Your task to perform on an android device: Search for razer nari on target.com, select the first entry, add it to the cart, then select checkout. Image 0: 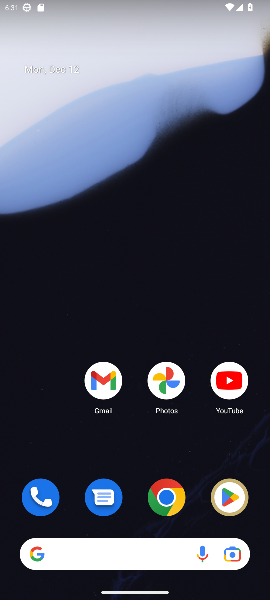
Step 0: click (60, 552)
Your task to perform on an android device: Search for razer nari on target.com, select the first entry, add it to the cart, then select checkout. Image 1: 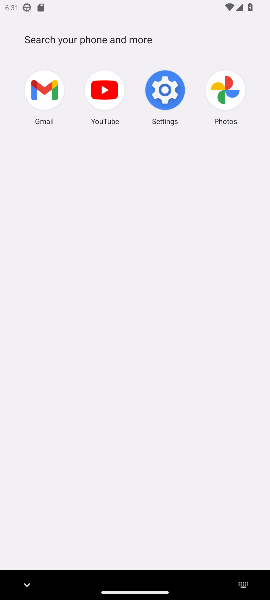
Step 1: press home button
Your task to perform on an android device: Search for razer nari on target.com, select the first entry, add it to the cart, then select checkout. Image 2: 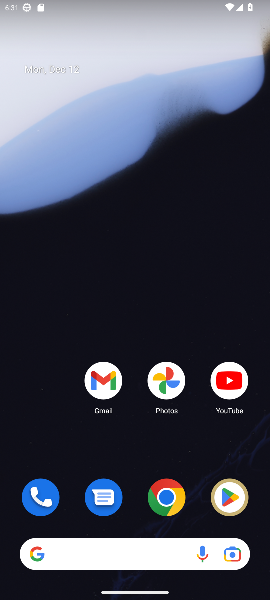
Step 2: drag from (65, 453) to (54, 150)
Your task to perform on an android device: Search for razer nari on target.com, select the first entry, add it to the cart, then select checkout. Image 3: 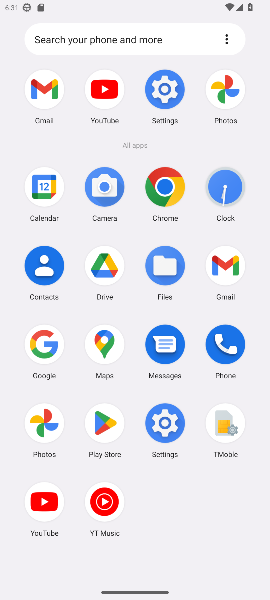
Step 3: click (31, 344)
Your task to perform on an android device: Search for razer nari on target.com, select the first entry, add it to the cart, then select checkout. Image 4: 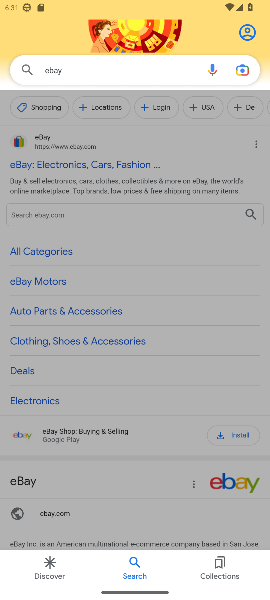
Step 4: click (92, 71)
Your task to perform on an android device: Search for razer nari on target.com, select the first entry, add it to the cart, then select checkout. Image 5: 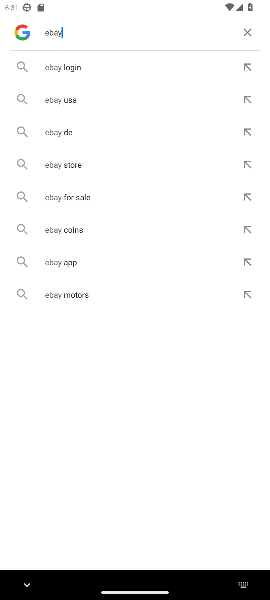
Step 5: click (248, 29)
Your task to perform on an android device: Search for razer nari on target.com, select the first entry, add it to the cart, then select checkout. Image 6: 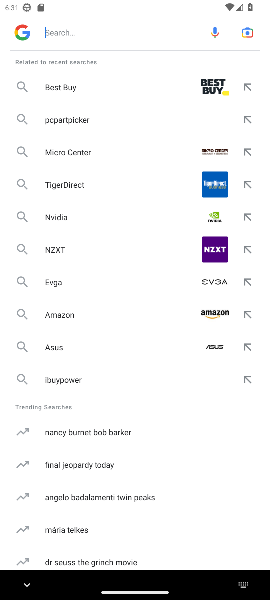
Step 6: type " target.com"
Your task to perform on an android device: Search for razer nari on target.com, select the first entry, add it to the cart, then select checkout. Image 7: 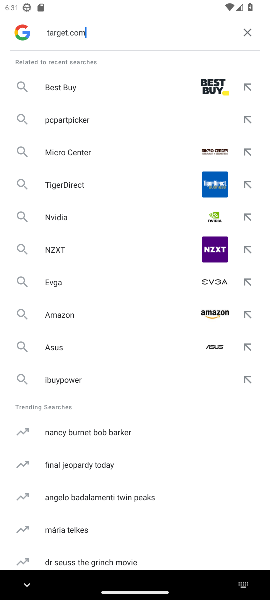
Step 7: press enter
Your task to perform on an android device: Search for razer nari on target.com, select the first entry, add it to the cart, then select checkout. Image 8: 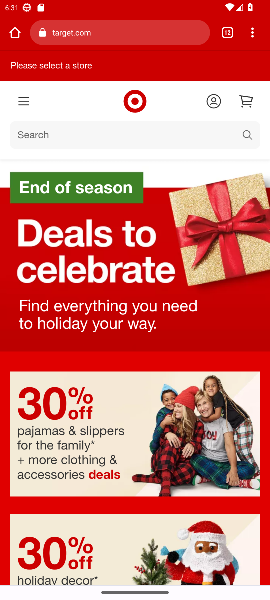
Step 8: click (44, 133)
Your task to perform on an android device: Search for razer nari on target.com, select the first entry, add it to the cart, then select checkout. Image 9: 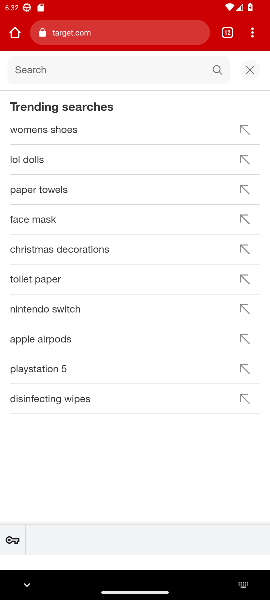
Step 9: type "razer nari"
Your task to perform on an android device: Search for razer nari on target.com, select the first entry, add it to the cart, then select checkout. Image 10: 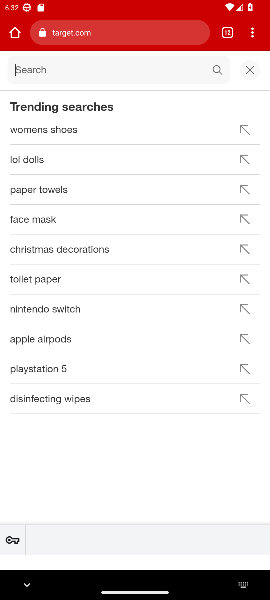
Step 10: press enter
Your task to perform on an android device: Search for razer nari on target.com, select the first entry, add it to the cart, then select checkout. Image 11: 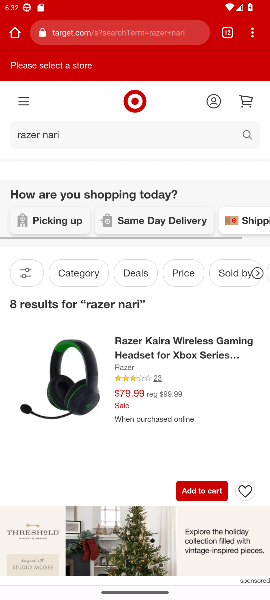
Step 11: task complete